Your task to perform on an android device: turn off notifications settings in the gmail app Image 0: 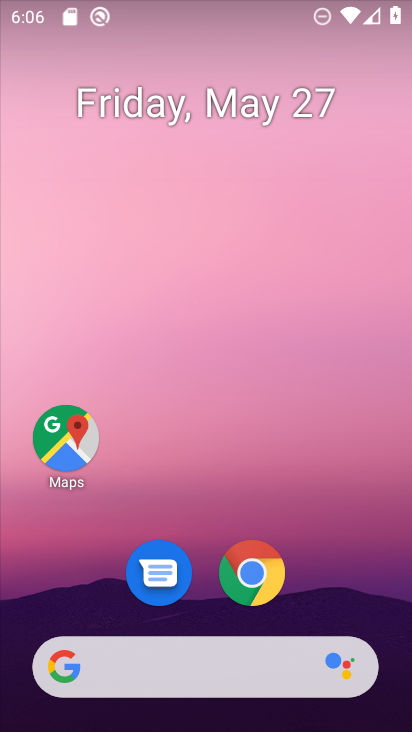
Step 0: press home button
Your task to perform on an android device: turn off notifications settings in the gmail app Image 1: 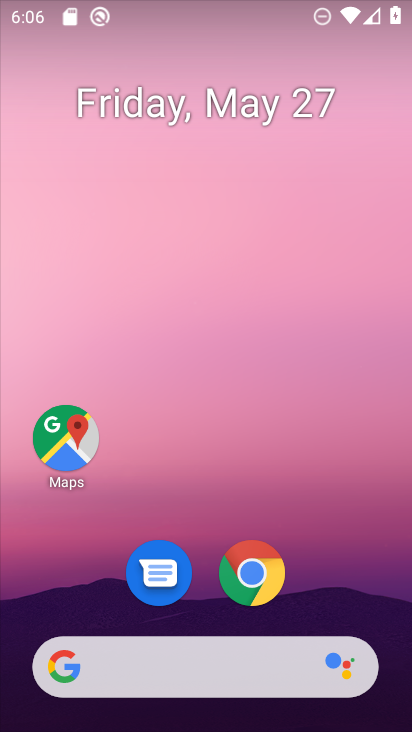
Step 1: drag from (201, 574) to (243, 137)
Your task to perform on an android device: turn off notifications settings in the gmail app Image 2: 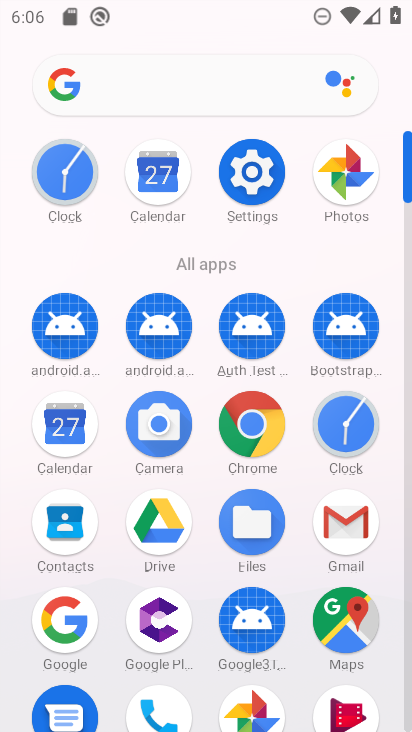
Step 2: click (336, 513)
Your task to perform on an android device: turn off notifications settings in the gmail app Image 3: 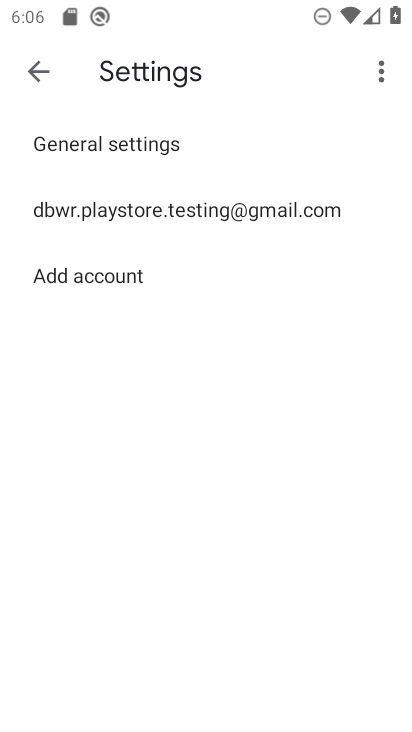
Step 3: click (213, 216)
Your task to perform on an android device: turn off notifications settings in the gmail app Image 4: 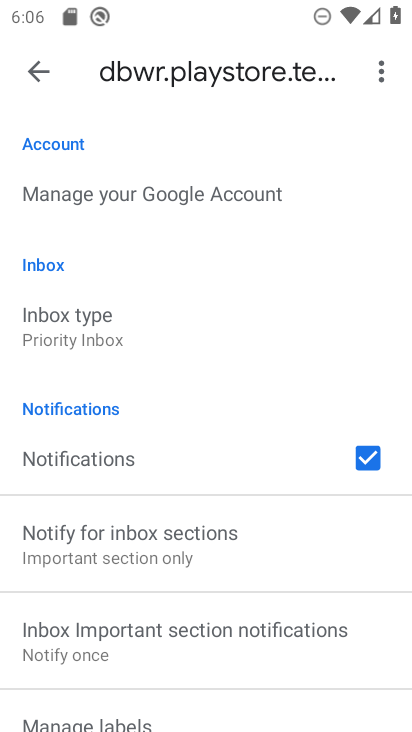
Step 4: click (35, 70)
Your task to perform on an android device: turn off notifications settings in the gmail app Image 5: 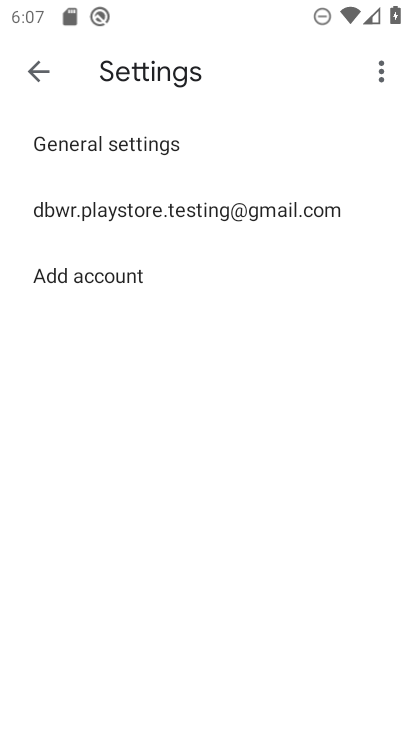
Step 5: click (157, 152)
Your task to perform on an android device: turn off notifications settings in the gmail app Image 6: 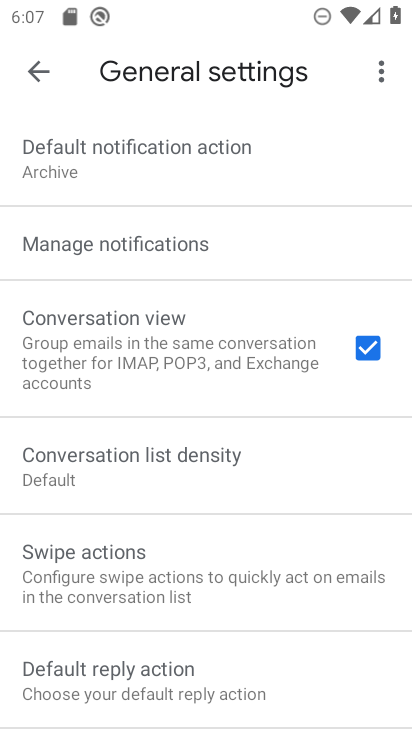
Step 6: click (146, 224)
Your task to perform on an android device: turn off notifications settings in the gmail app Image 7: 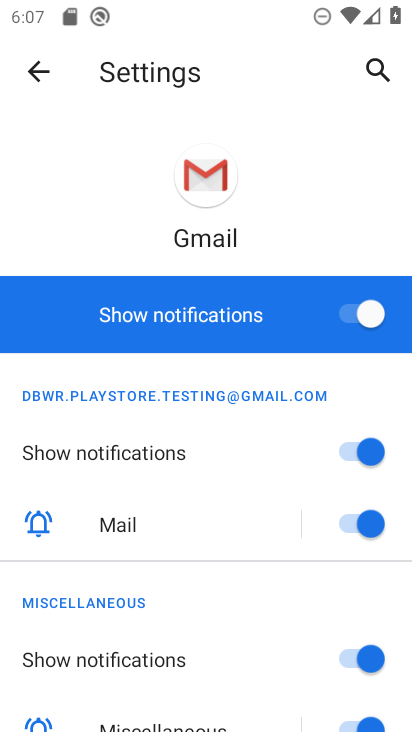
Step 7: click (336, 310)
Your task to perform on an android device: turn off notifications settings in the gmail app Image 8: 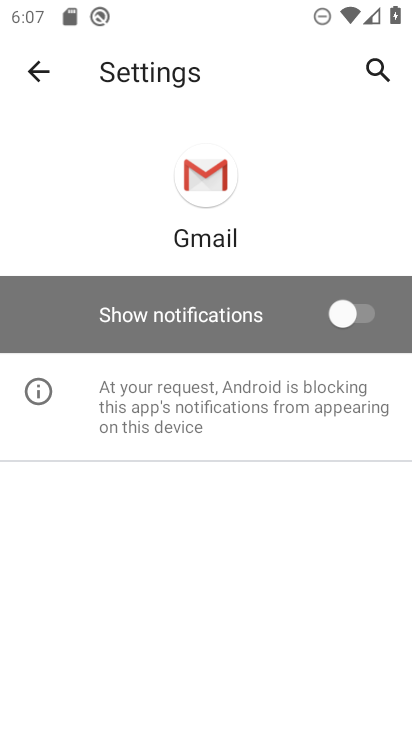
Step 8: task complete